Your task to perform on an android device: Open Wikipedia Image 0: 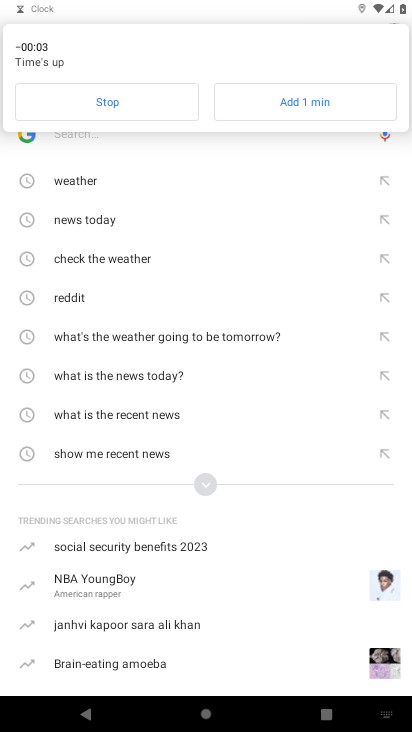
Step 0: press home button
Your task to perform on an android device: Open Wikipedia Image 1: 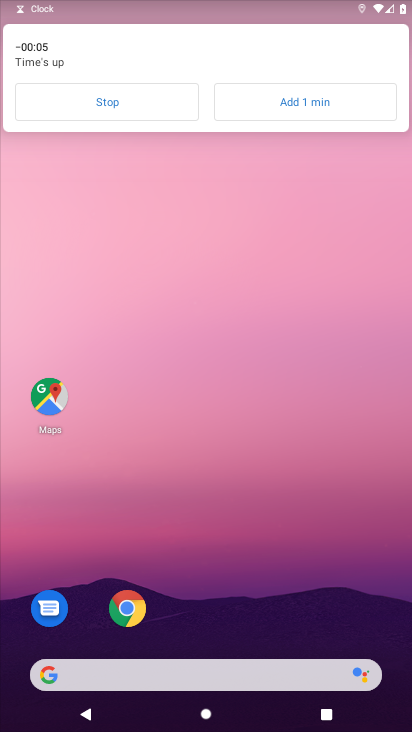
Step 1: drag from (295, 624) to (232, 108)
Your task to perform on an android device: Open Wikipedia Image 2: 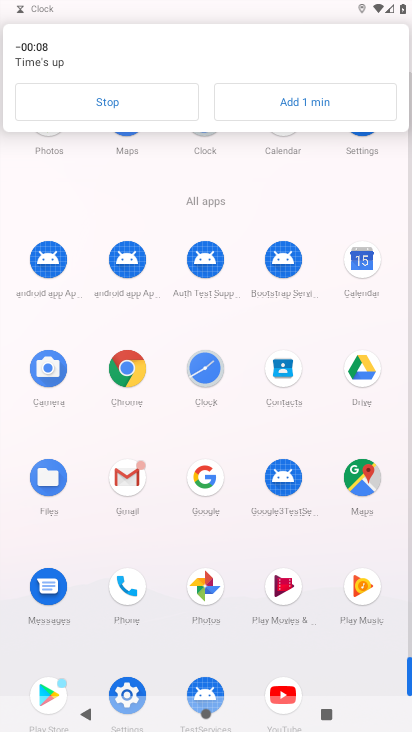
Step 2: click (93, 101)
Your task to perform on an android device: Open Wikipedia Image 3: 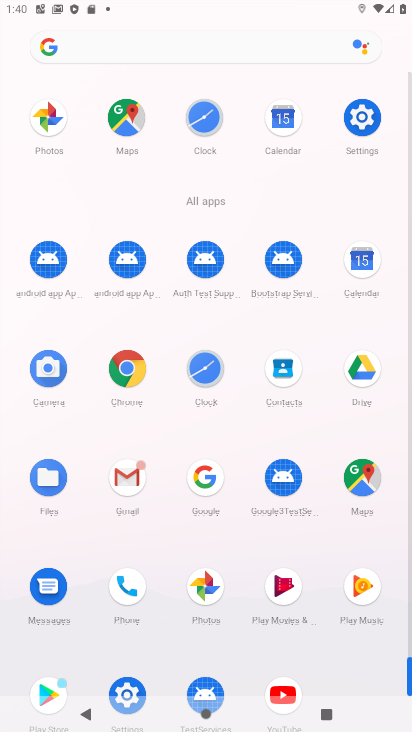
Step 3: click (120, 362)
Your task to perform on an android device: Open Wikipedia Image 4: 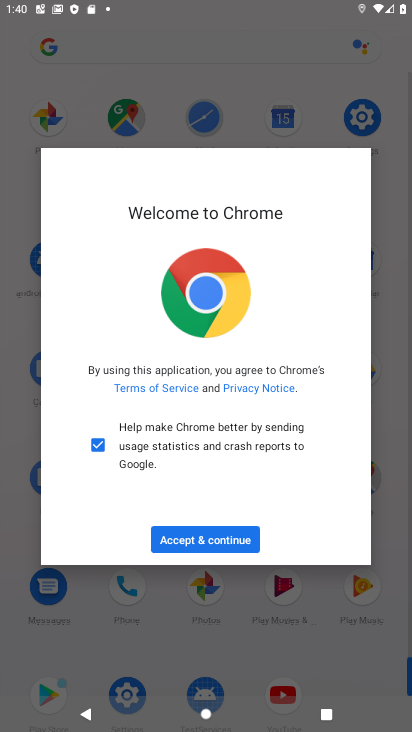
Step 4: click (217, 532)
Your task to perform on an android device: Open Wikipedia Image 5: 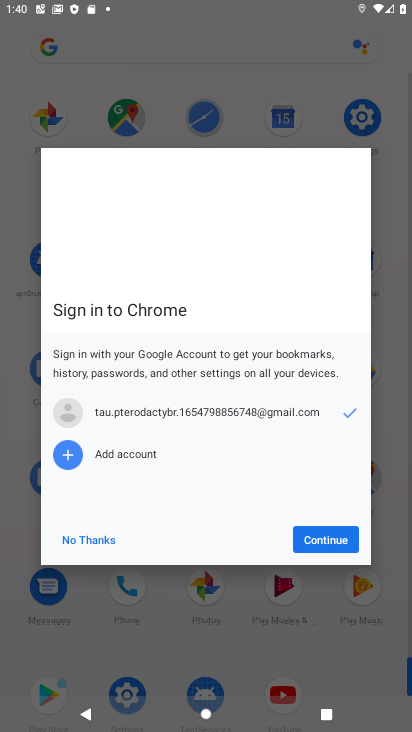
Step 5: click (332, 535)
Your task to perform on an android device: Open Wikipedia Image 6: 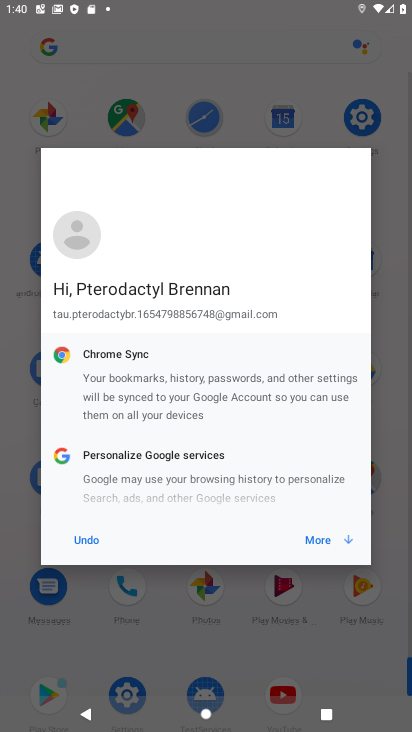
Step 6: click (332, 535)
Your task to perform on an android device: Open Wikipedia Image 7: 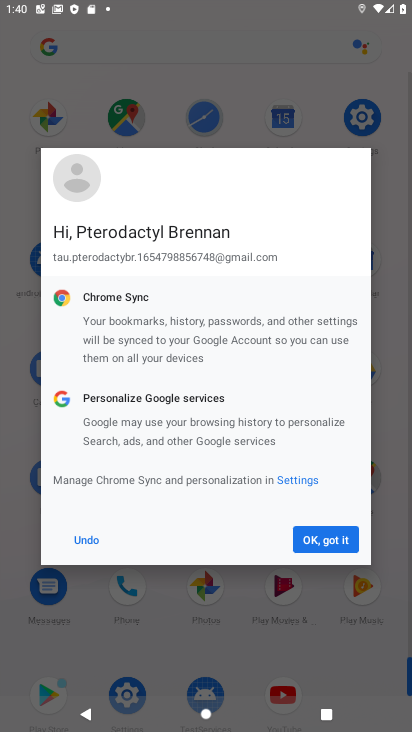
Step 7: click (332, 535)
Your task to perform on an android device: Open Wikipedia Image 8: 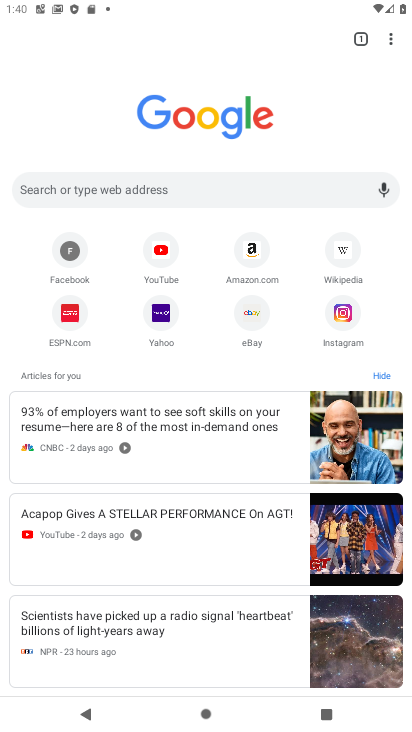
Step 8: click (343, 246)
Your task to perform on an android device: Open Wikipedia Image 9: 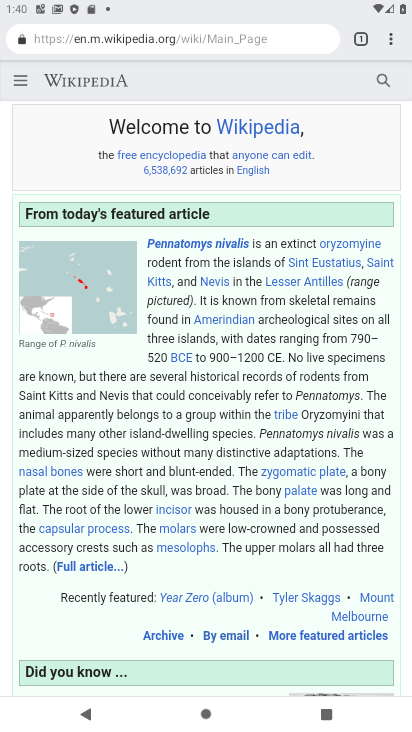
Step 9: task complete